Your task to perform on an android device: Clear the shopping cart on amazon. Image 0: 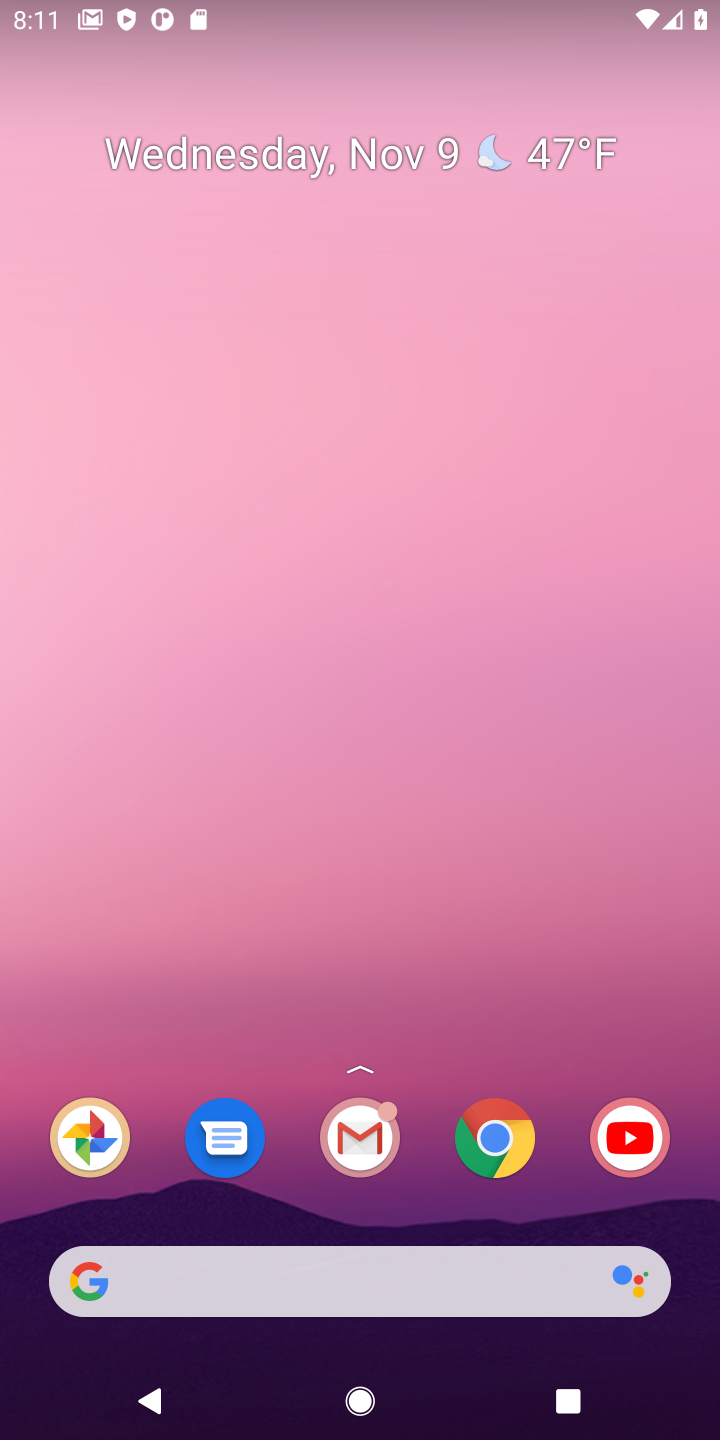
Step 0: drag from (446, 751) to (446, 91)
Your task to perform on an android device: Clear the shopping cart on amazon. Image 1: 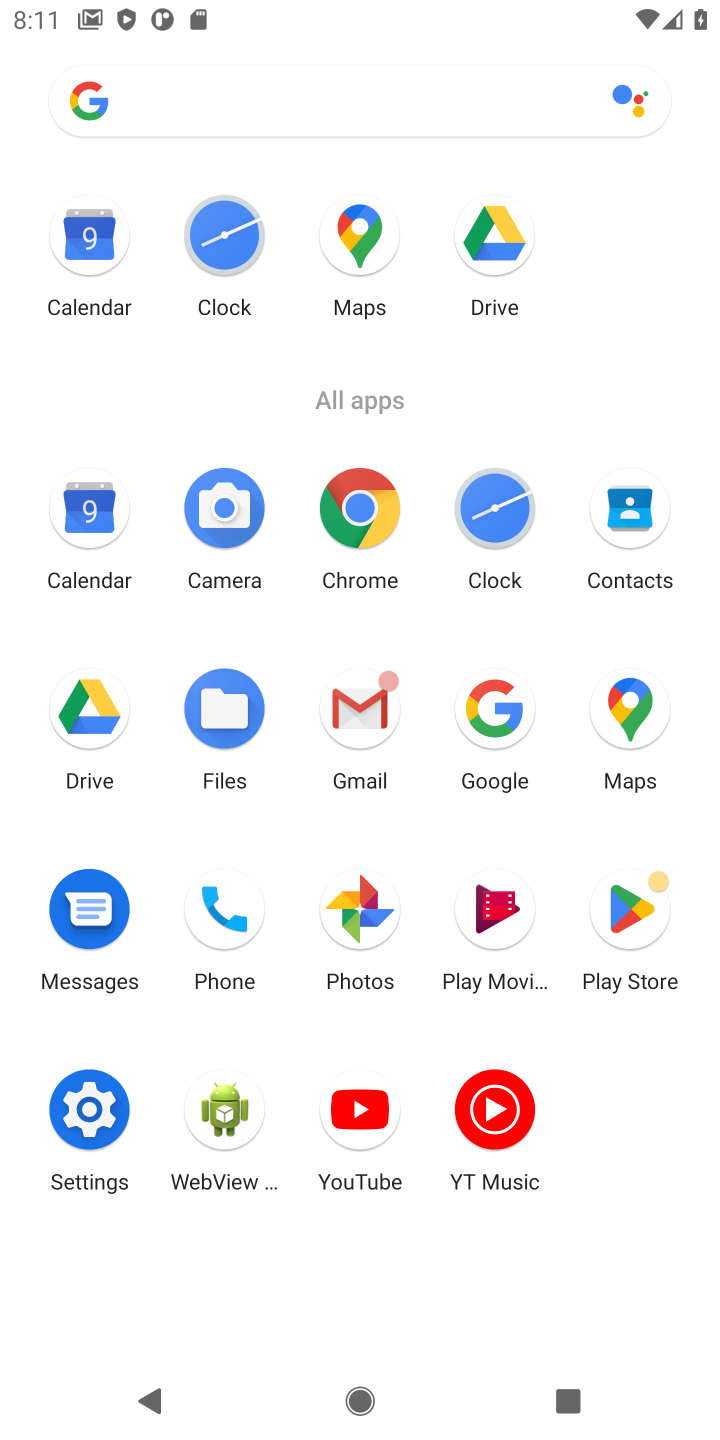
Step 1: click (359, 514)
Your task to perform on an android device: Clear the shopping cart on amazon. Image 2: 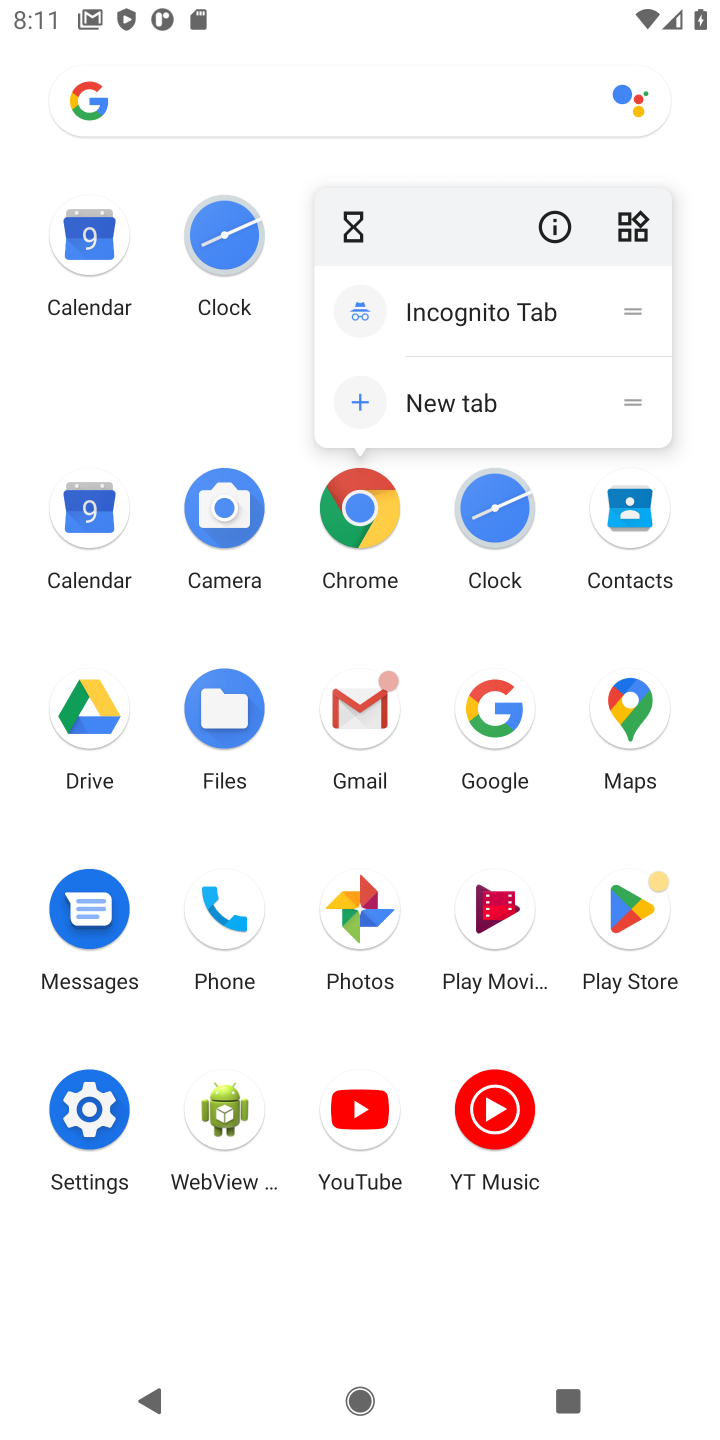
Step 2: click (356, 502)
Your task to perform on an android device: Clear the shopping cart on amazon. Image 3: 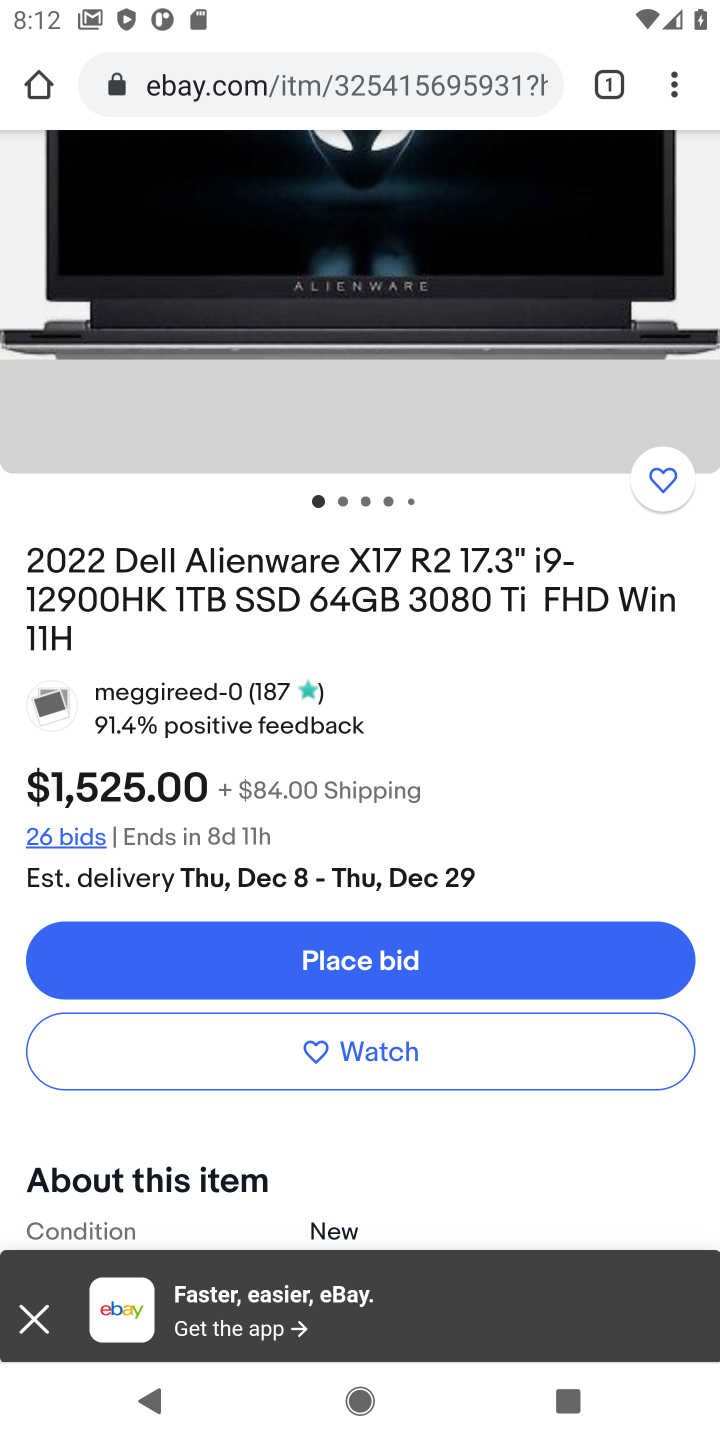
Step 3: click (419, 61)
Your task to perform on an android device: Clear the shopping cart on amazon. Image 4: 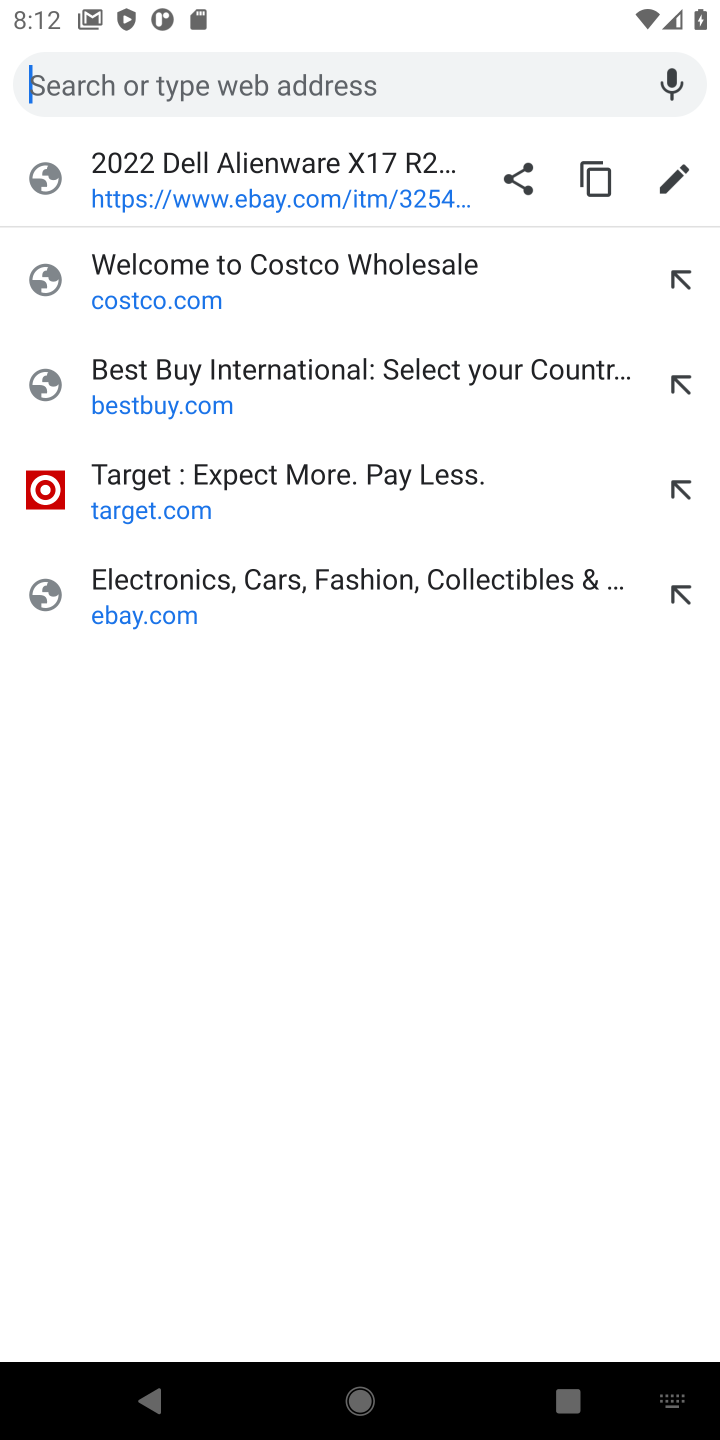
Step 4: type "amazon.com"
Your task to perform on an android device: Clear the shopping cart on amazon. Image 5: 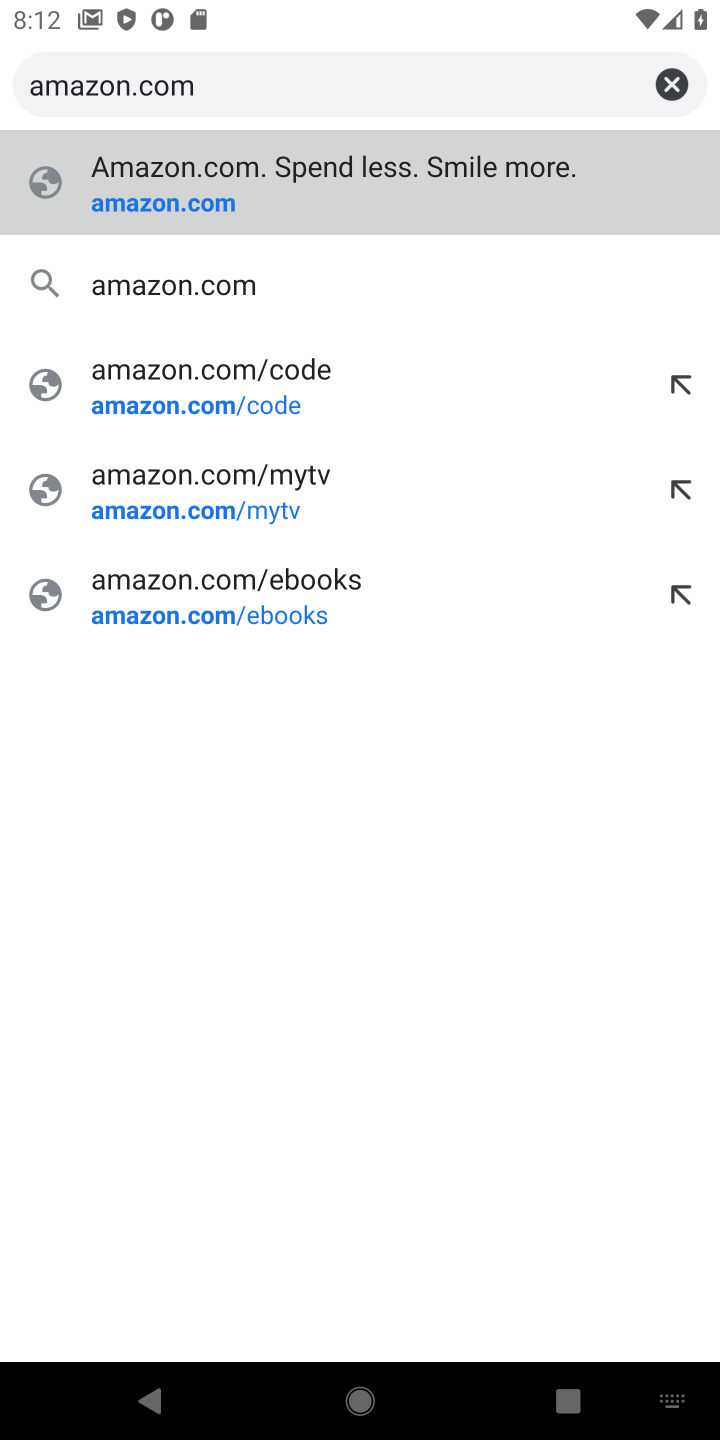
Step 5: press enter
Your task to perform on an android device: Clear the shopping cart on amazon. Image 6: 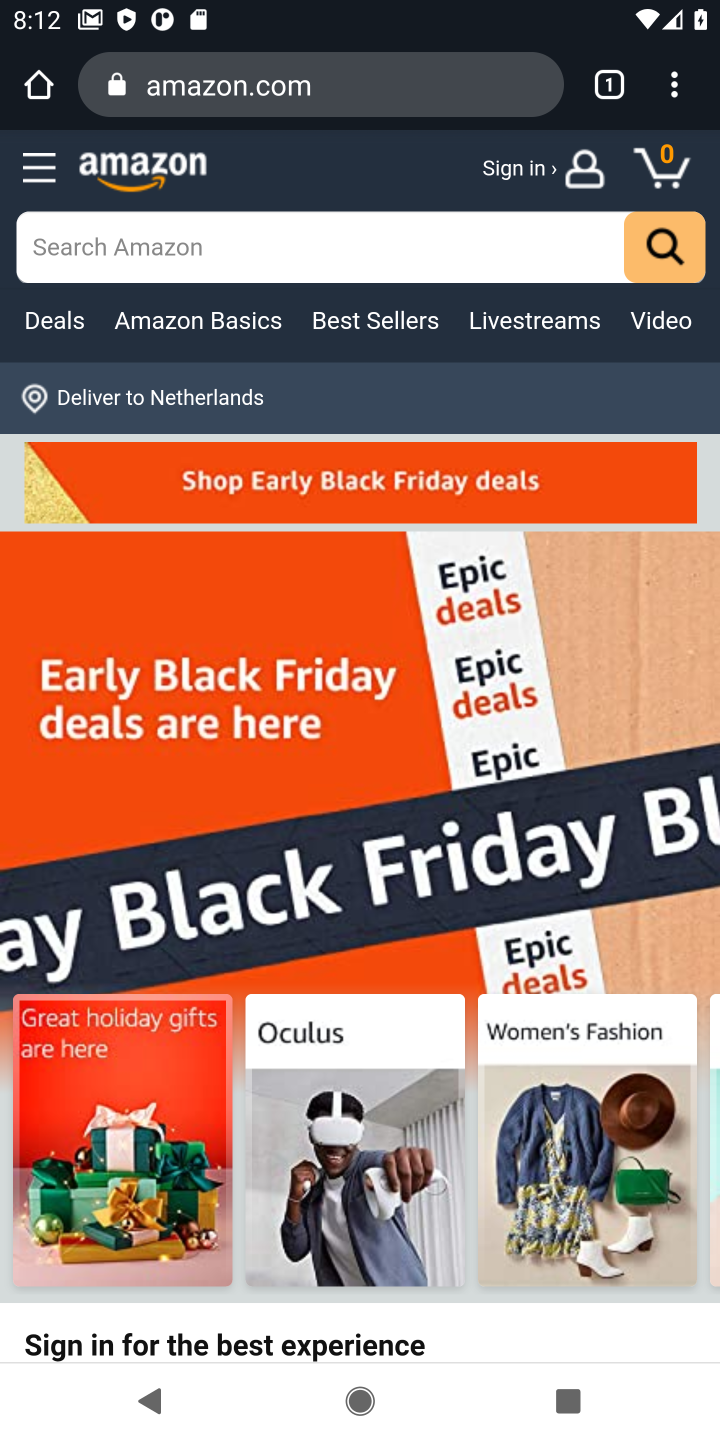
Step 6: click (648, 157)
Your task to perform on an android device: Clear the shopping cart on amazon. Image 7: 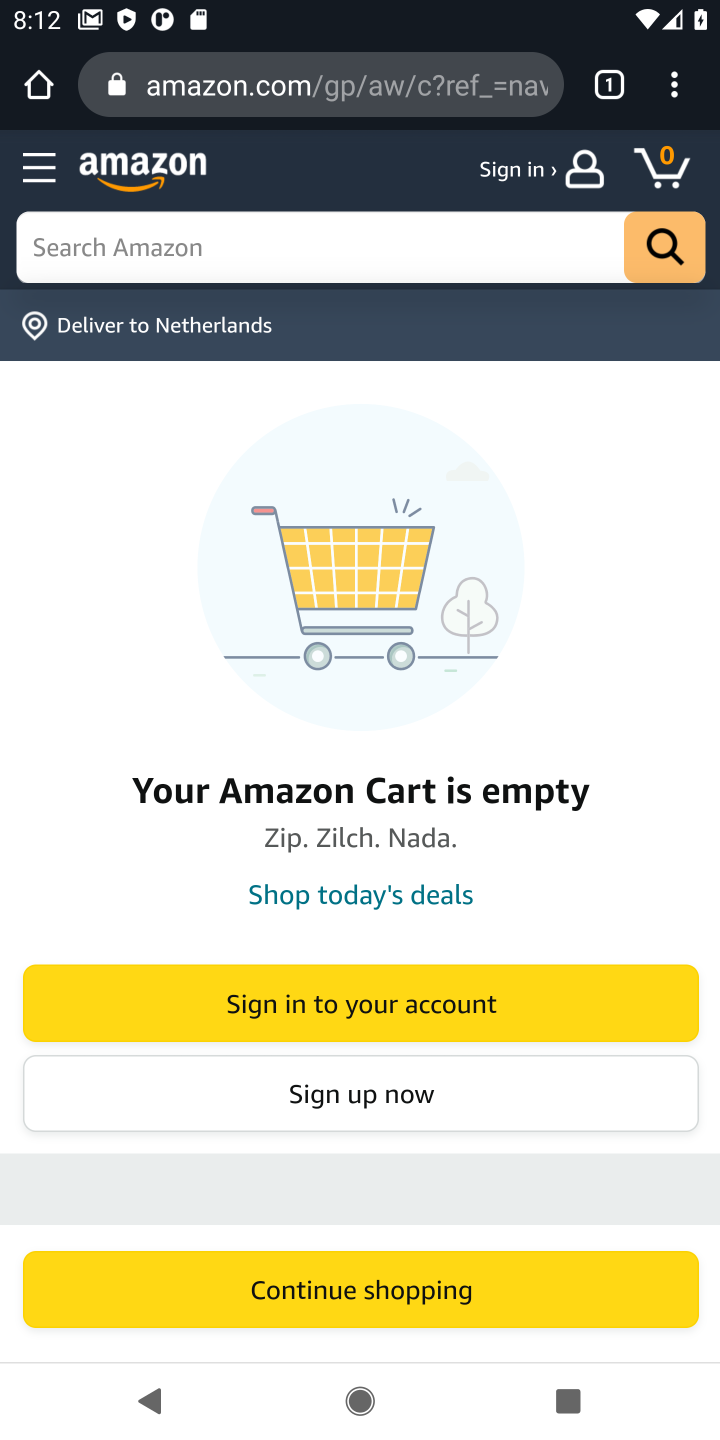
Step 7: task complete